Your task to perform on an android device: turn on javascript in the chrome app Image 0: 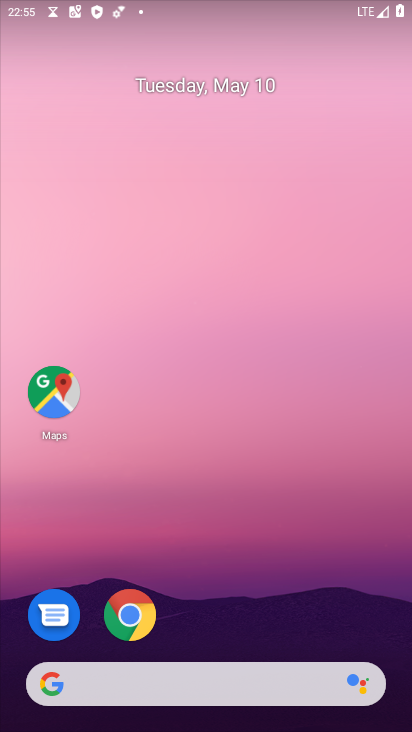
Step 0: click (126, 615)
Your task to perform on an android device: turn on javascript in the chrome app Image 1: 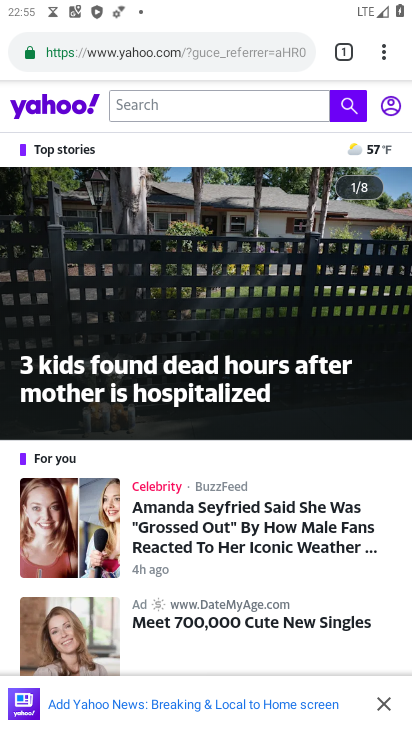
Step 1: click (384, 50)
Your task to perform on an android device: turn on javascript in the chrome app Image 2: 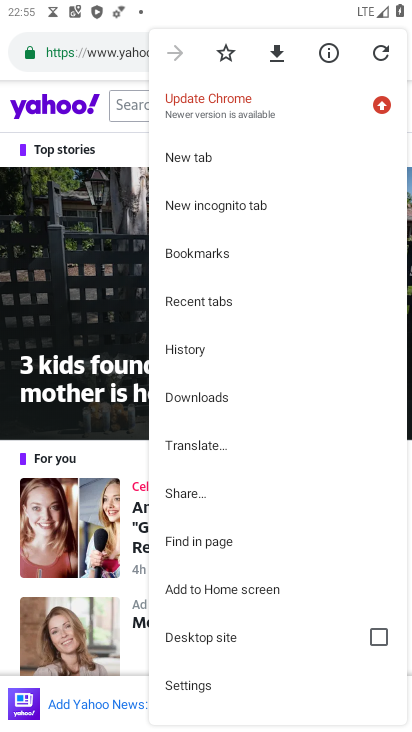
Step 2: click (199, 685)
Your task to perform on an android device: turn on javascript in the chrome app Image 3: 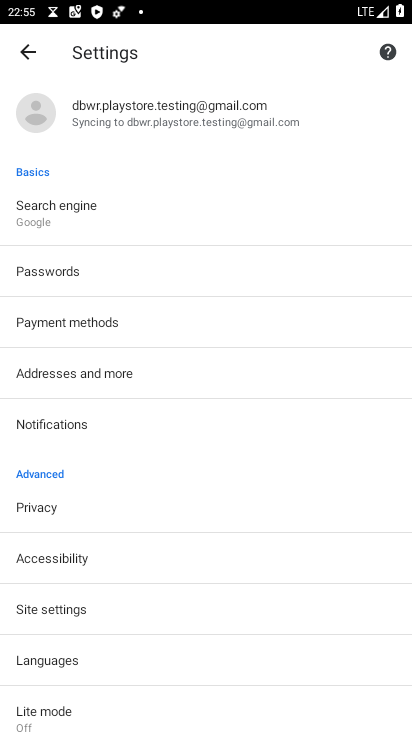
Step 3: click (69, 610)
Your task to perform on an android device: turn on javascript in the chrome app Image 4: 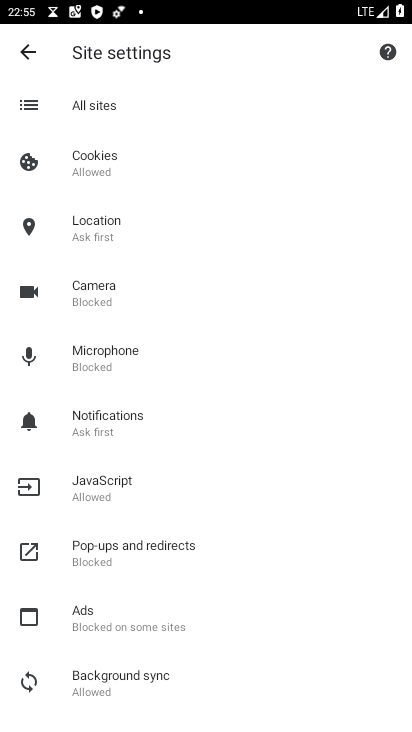
Step 4: click (98, 487)
Your task to perform on an android device: turn on javascript in the chrome app Image 5: 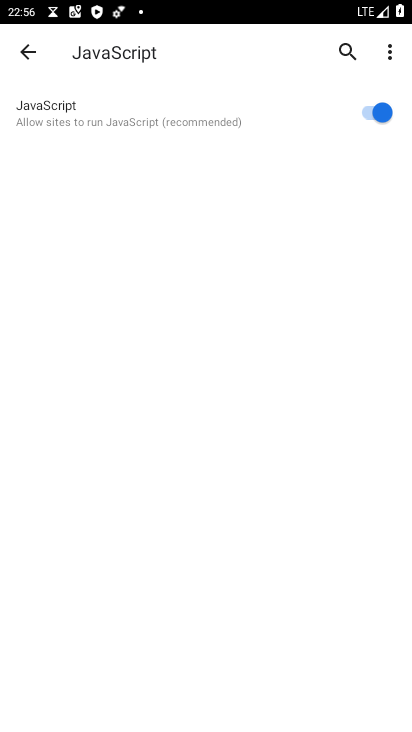
Step 5: task complete